Your task to perform on an android device: toggle airplane mode Image 0: 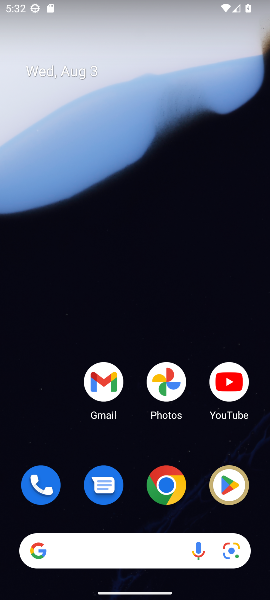
Step 0: drag from (130, 454) to (189, 1)
Your task to perform on an android device: toggle airplane mode Image 1: 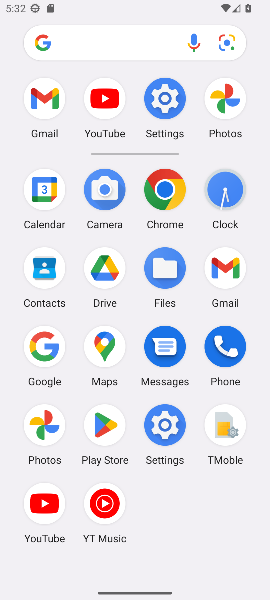
Step 1: click (174, 116)
Your task to perform on an android device: toggle airplane mode Image 2: 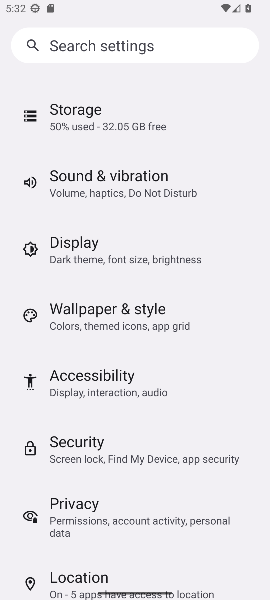
Step 2: drag from (134, 137) to (64, 598)
Your task to perform on an android device: toggle airplane mode Image 3: 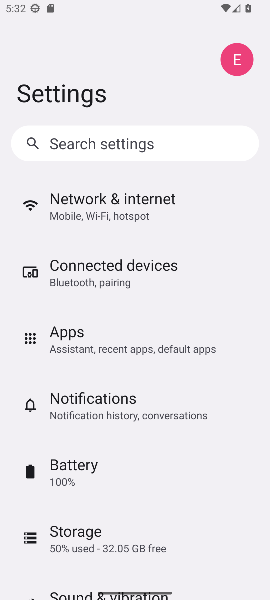
Step 3: click (100, 213)
Your task to perform on an android device: toggle airplane mode Image 4: 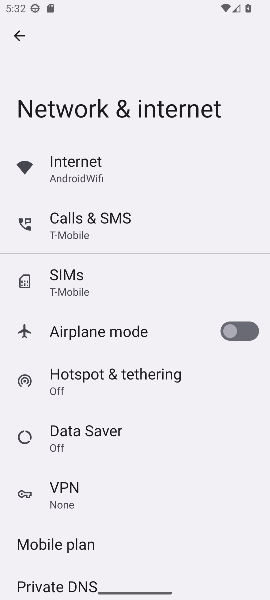
Step 4: click (254, 334)
Your task to perform on an android device: toggle airplane mode Image 5: 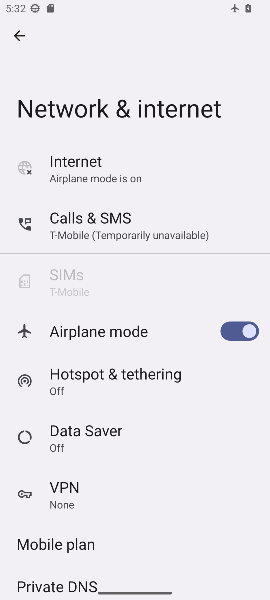
Step 5: task complete